Your task to perform on an android device: Go to Maps Image 0: 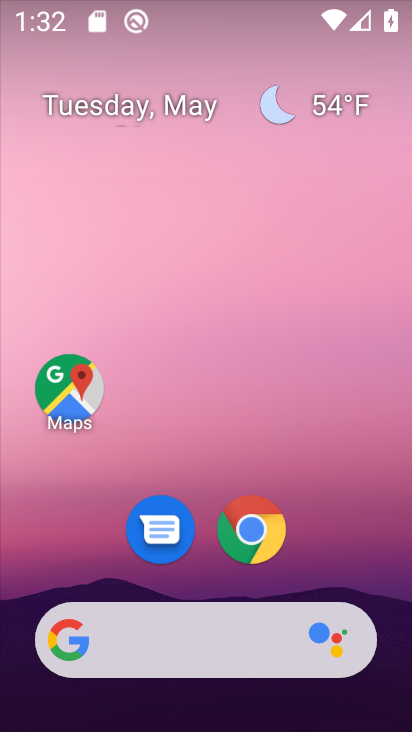
Step 0: drag from (339, 587) to (332, 254)
Your task to perform on an android device: Go to Maps Image 1: 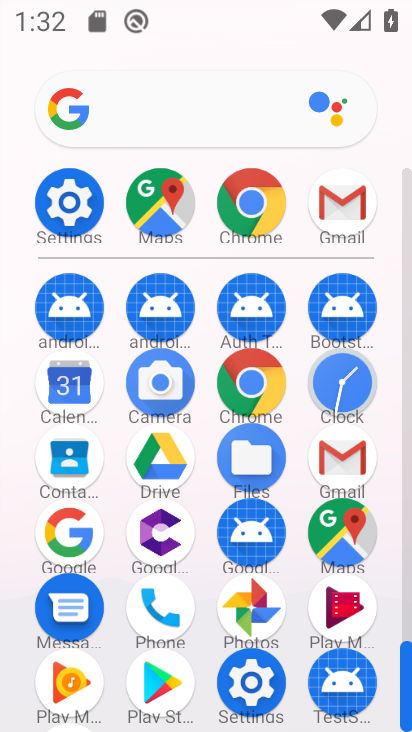
Step 1: click (144, 200)
Your task to perform on an android device: Go to Maps Image 2: 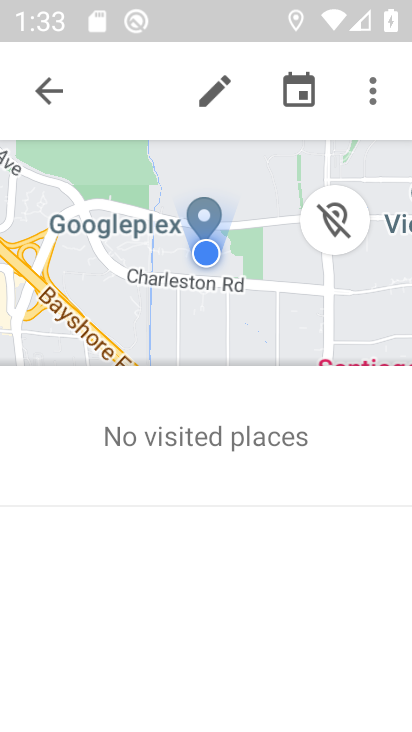
Step 2: task complete